Your task to perform on an android device: turn notification dots off Image 0: 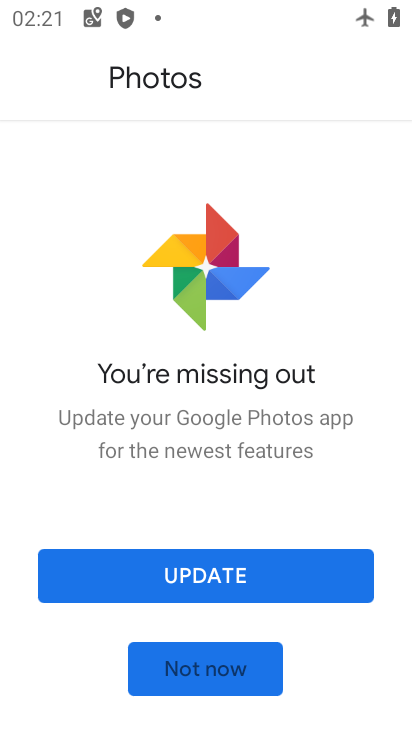
Step 0: press home button
Your task to perform on an android device: turn notification dots off Image 1: 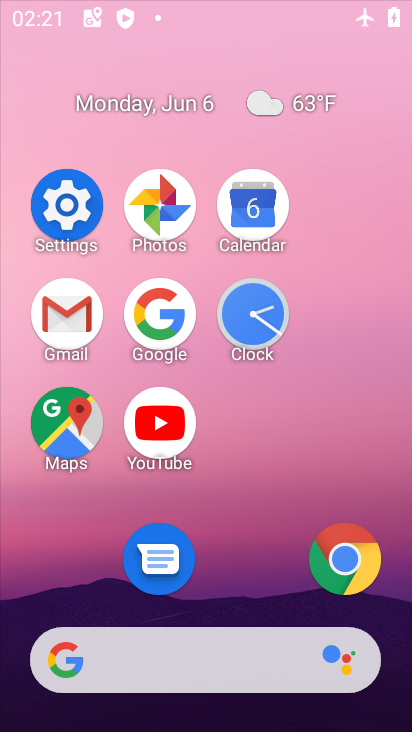
Step 1: press back button
Your task to perform on an android device: turn notification dots off Image 2: 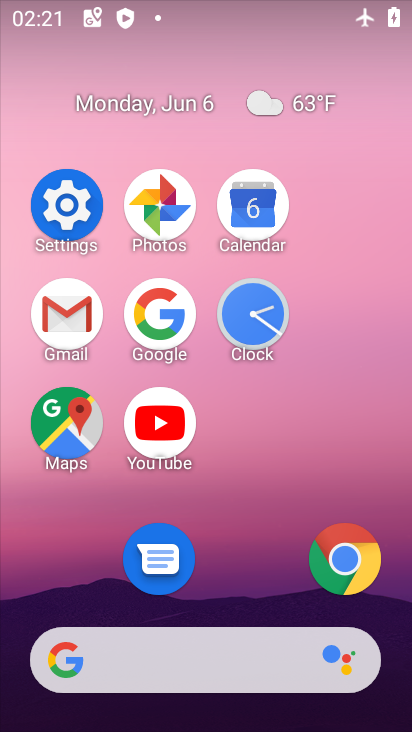
Step 2: click (79, 210)
Your task to perform on an android device: turn notification dots off Image 3: 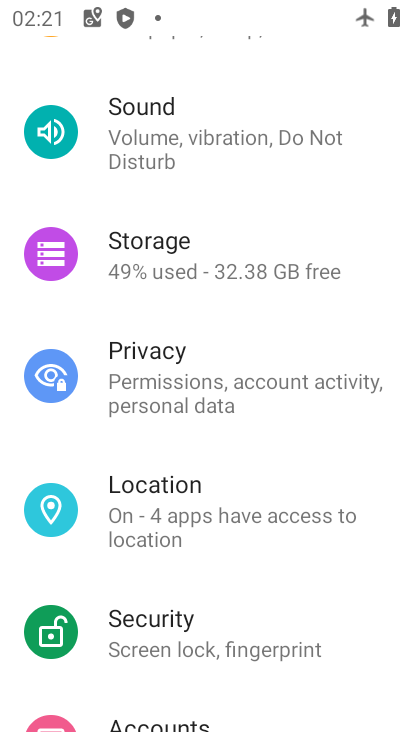
Step 3: drag from (285, 292) to (272, 692)
Your task to perform on an android device: turn notification dots off Image 4: 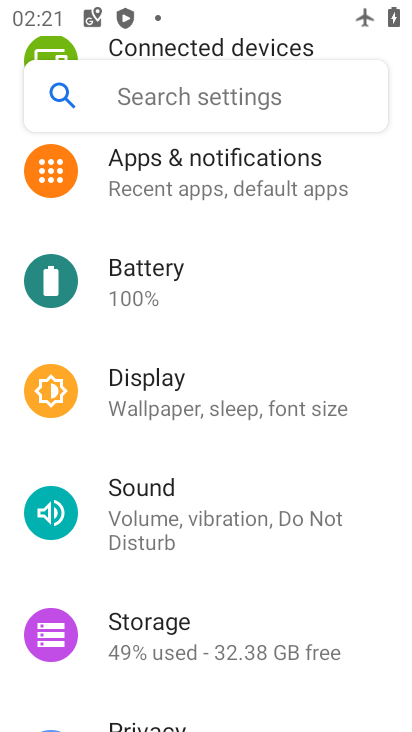
Step 4: drag from (261, 318) to (228, 565)
Your task to perform on an android device: turn notification dots off Image 5: 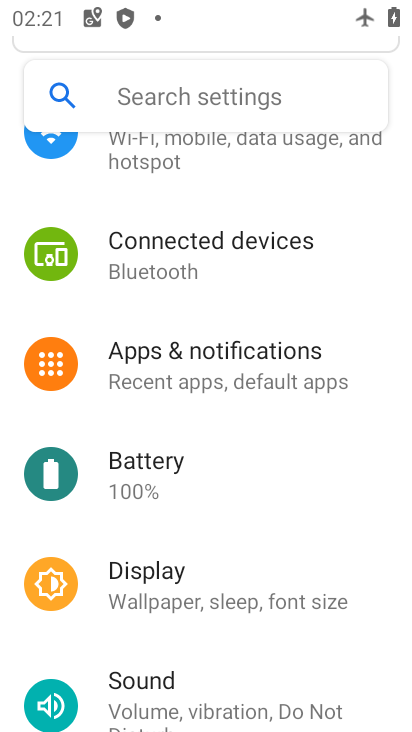
Step 5: click (282, 382)
Your task to perform on an android device: turn notification dots off Image 6: 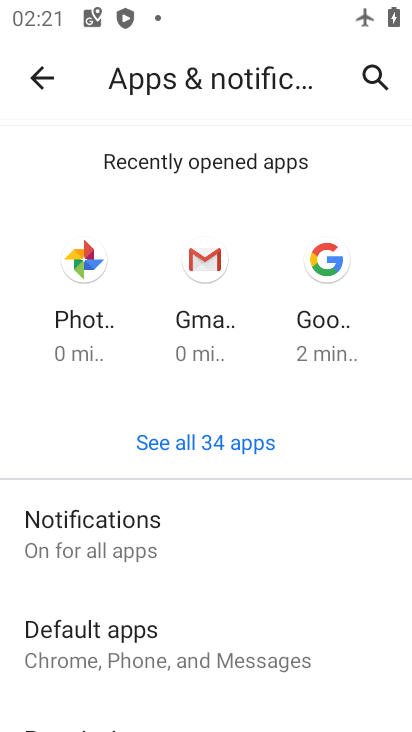
Step 6: drag from (271, 533) to (311, 72)
Your task to perform on an android device: turn notification dots off Image 7: 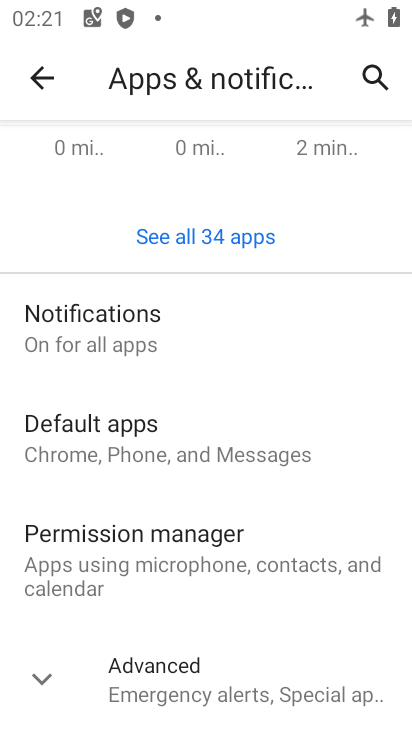
Step 7: click (212, 677)
Your task to perform on an android device: turn notification dots off Image 8: 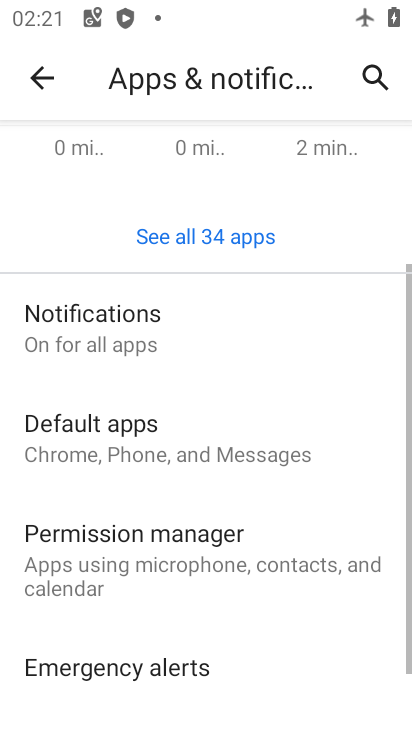
Step 8: drag from (214, 677) to (316, 246)
Your task to perform on an android device: turn notification dots off Image 9: 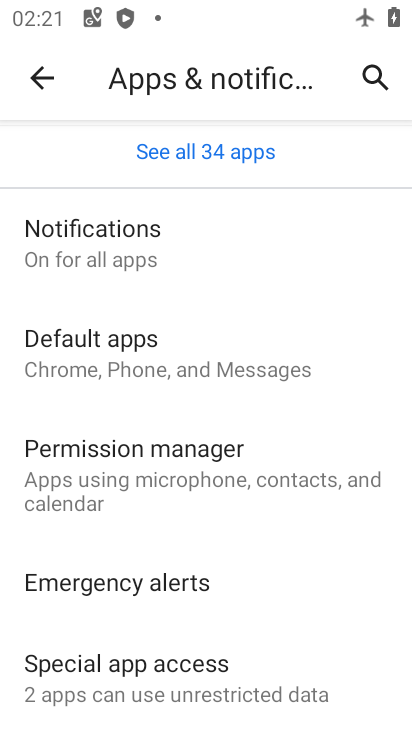
Step 9: click (169, 231)
Your task to perform on an android device: turn notification dots off Image 10: 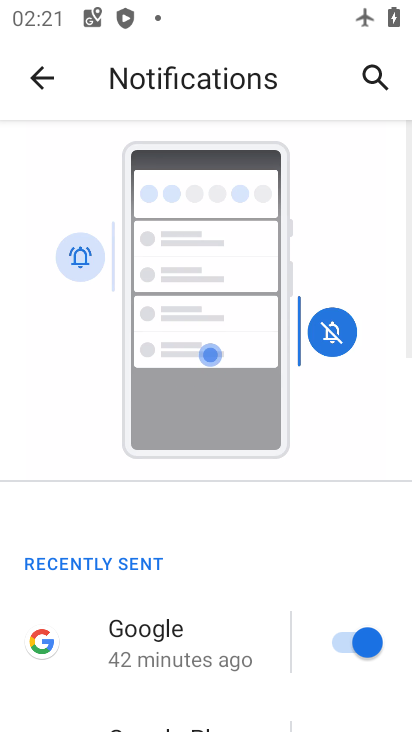
Step 10: drag from (206, 499) to (209, 183)
Your task to perform on an android device: turn notification dots off Image 11: 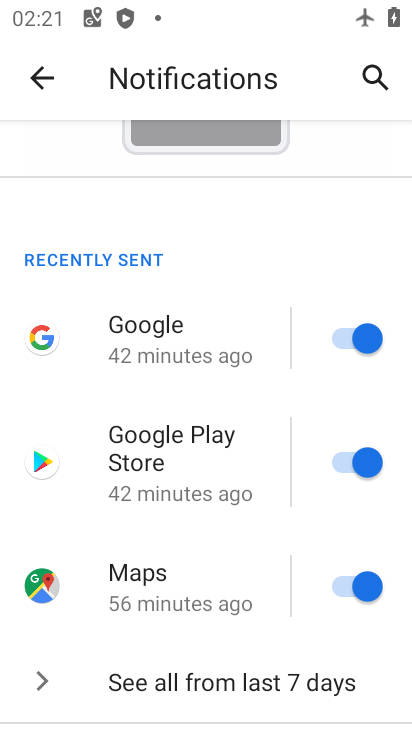
Step 11: drag from (217, 526) to (211, 178)
Your task to perform on an android device: turn notification dots off Image 12: 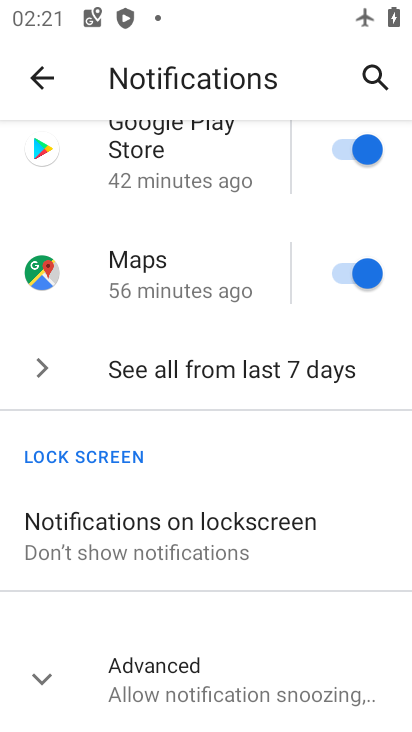
Step 12: click (156, 672)
Your task to perform on an android device: turn notification dots off Image 13: 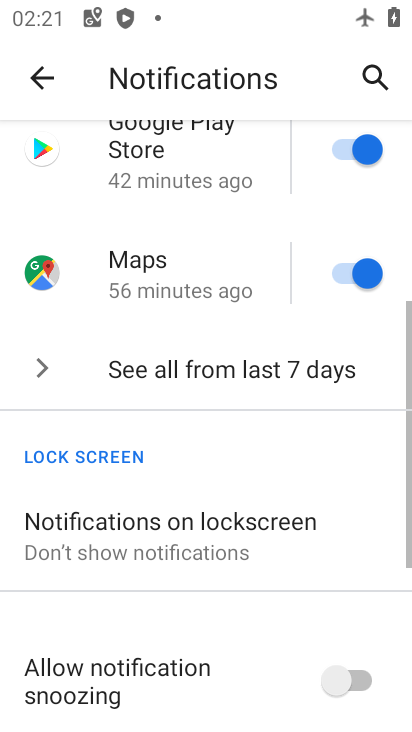
Step 13: drag from (156, 672) to (189, 301)
Your task to perform on an android device: turn notification dots off Image 14: 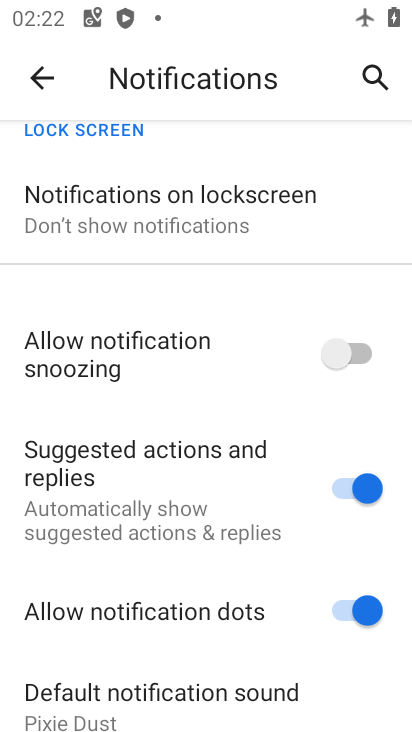
Step 14: drag from (226, 557) to (264, 273)
Your task to perform on an android device: turn notification dots off Image 15: 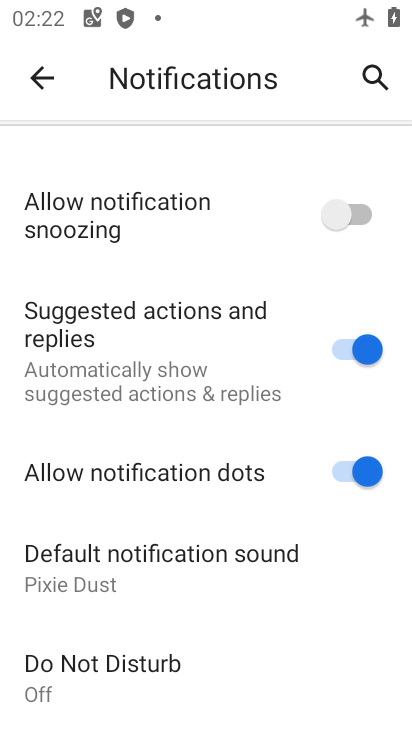
Step 15: click (348, 459)
Your task to perform on an android device: turn notification dots off Image 16: 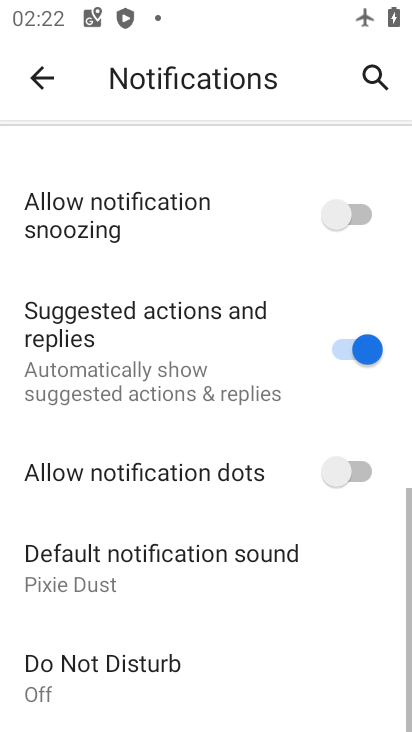
Step 16: task complete